Your task to perform on an android device: Add "logitech g pro" to the cart on bestbuy.com, then select checkout. Image 0: 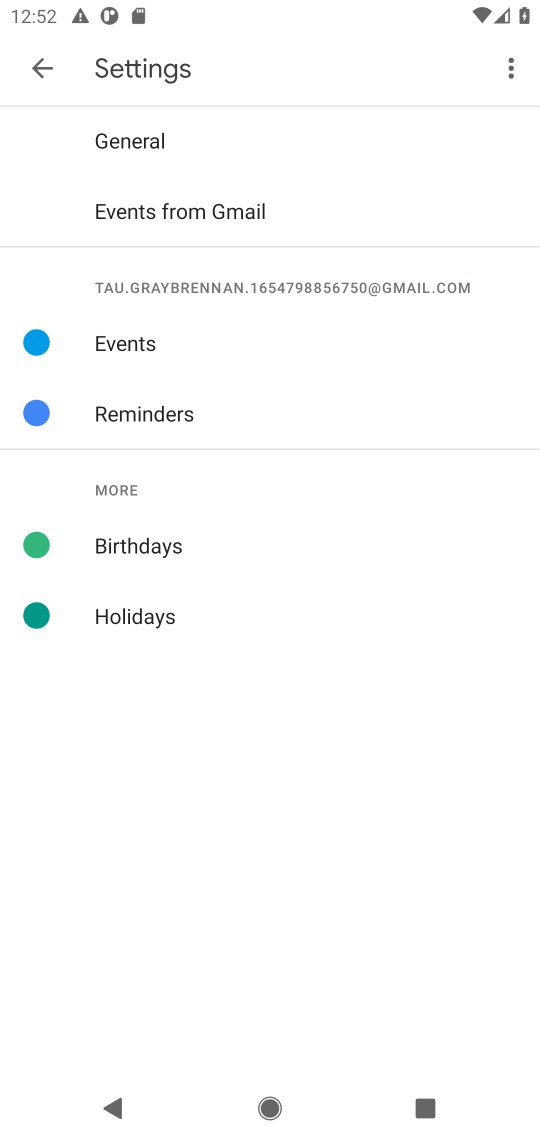
Step 0: press home button
Your task to perform on an android device: Add "logitech g pro" to the cart on bestbuy.com, then select checkout. Image 1: 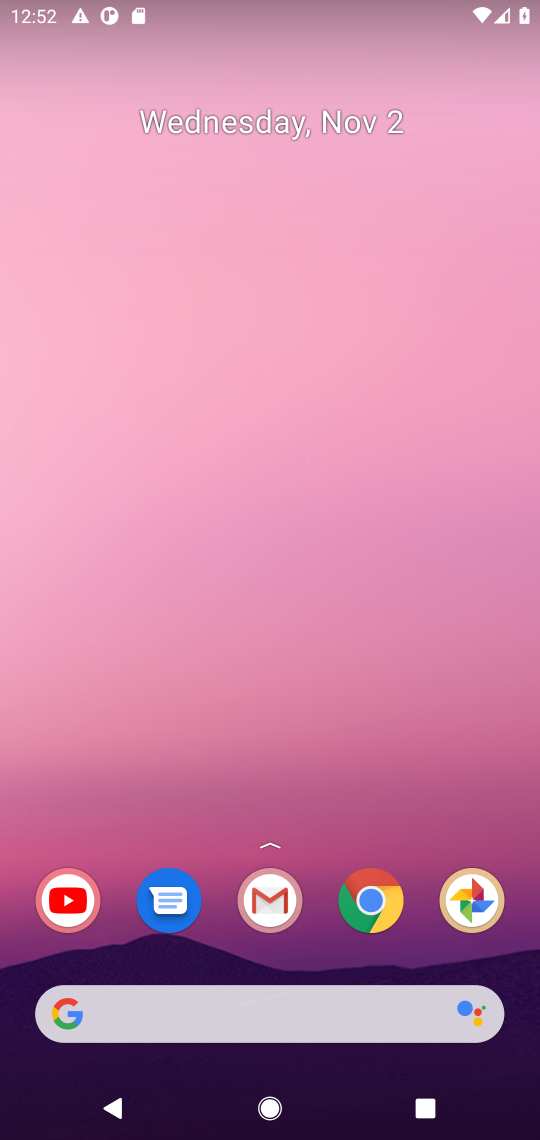
Step 1: click (349, 910)
Your task to perform on an android device: Add "logitech g pro" to the cart on bestbuy.com, then select checkout. Image 2: 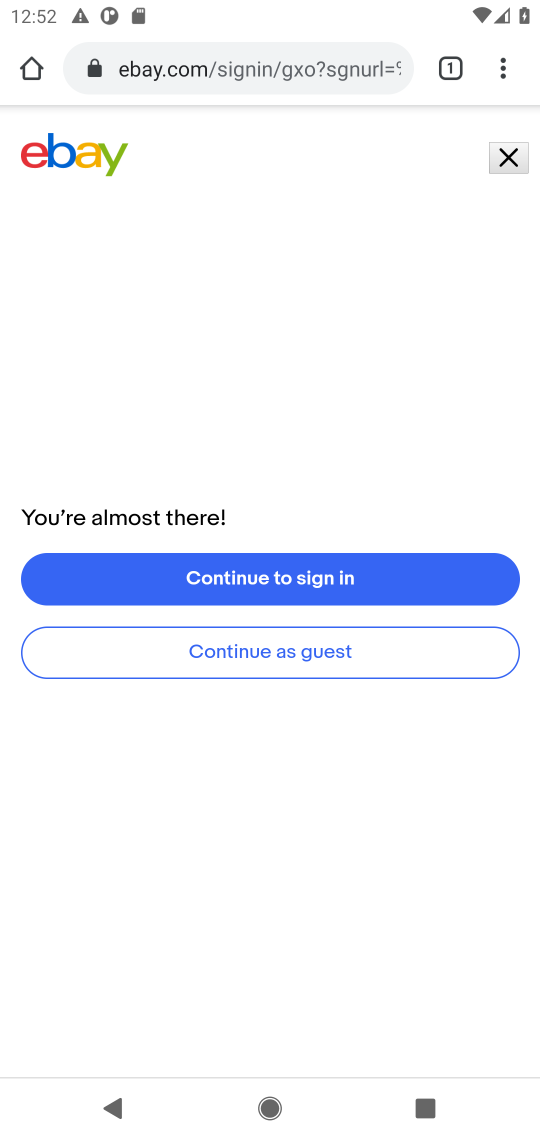
Step 2: click (241, 61)
Your task to perform on an android device: Add "logitech g pro" to the cart on bestbuy.com, then select checkout. Image 3: 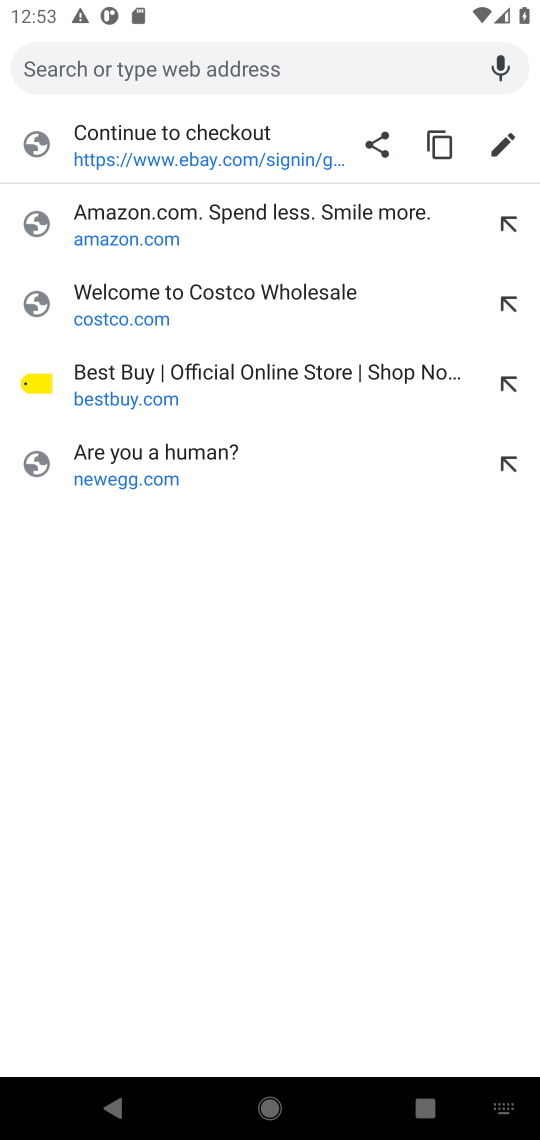
Step 3: click (191, 374)
Your task to perform on an android device: Add "logitech g pro" to the cart on bestbuy.com, then select checkout. Image 4: 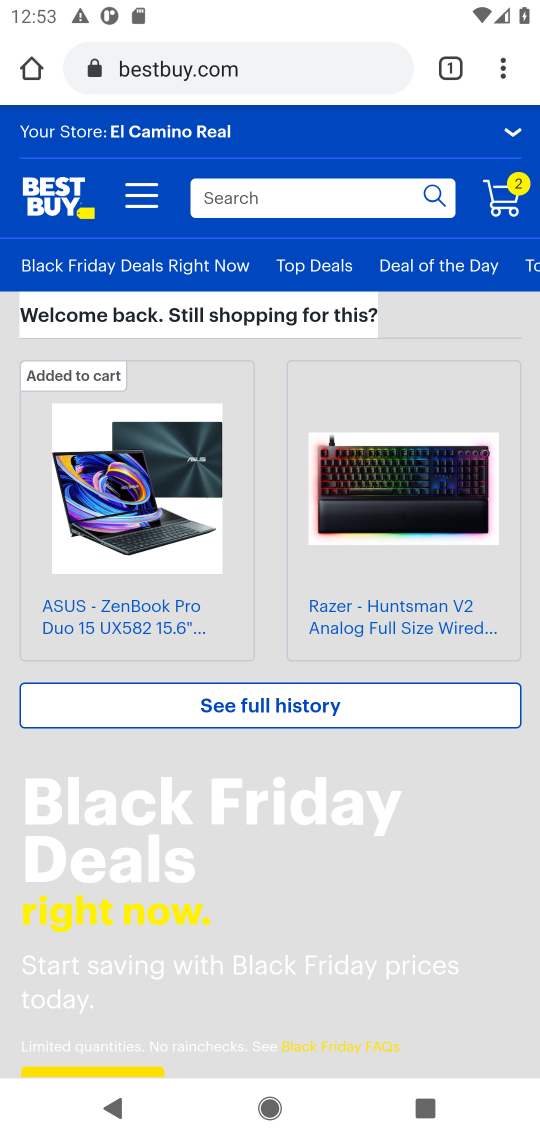
Step 4: click (240, 202)
Your task to perform on an android device: Add "logitech g pro" to the cart on bestbuy.com, then select checkout. Image 5: 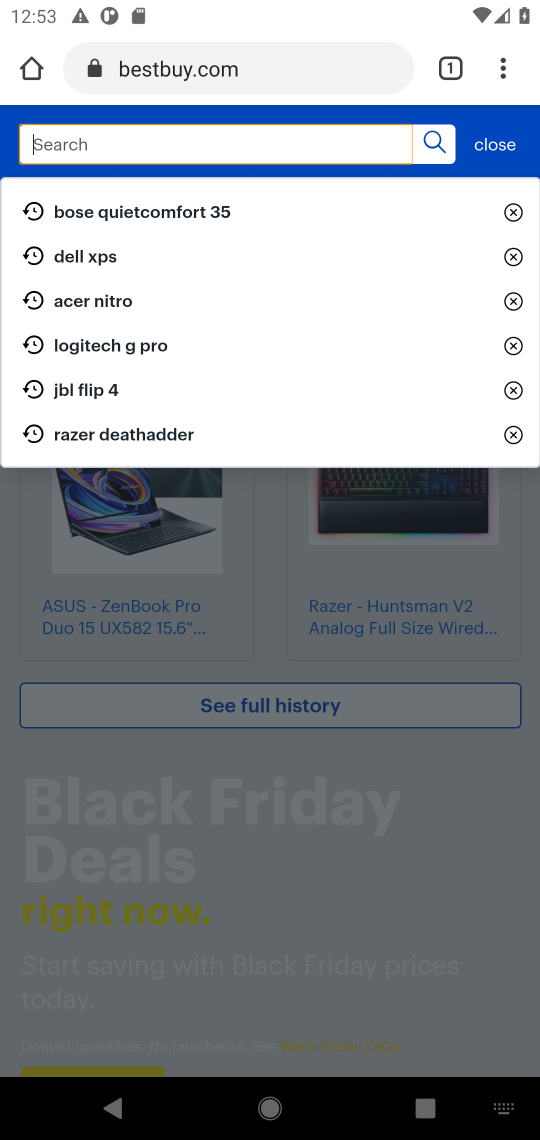
Step 5: type "ogitech g pro"
Your task to perform on an android device: Add "logitech g pro" to the cart on bestbuy.com, then select checkout. Image 6: 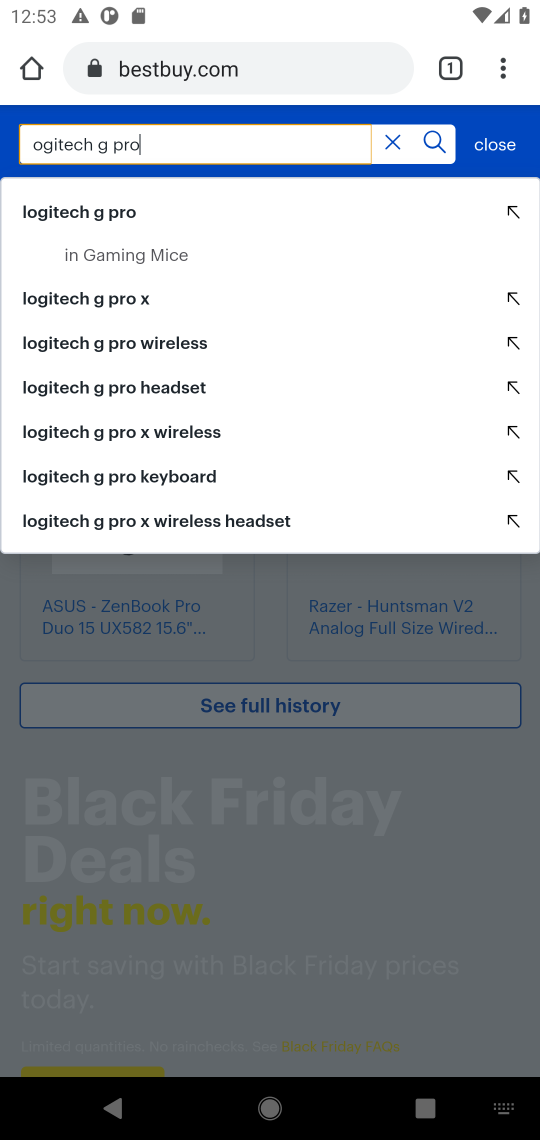
Step 6: click (38, 214)
Your task to perform on an android device: Add "logitech g pro" to the cart on bestbuy.com, then select checkout. Image 7: 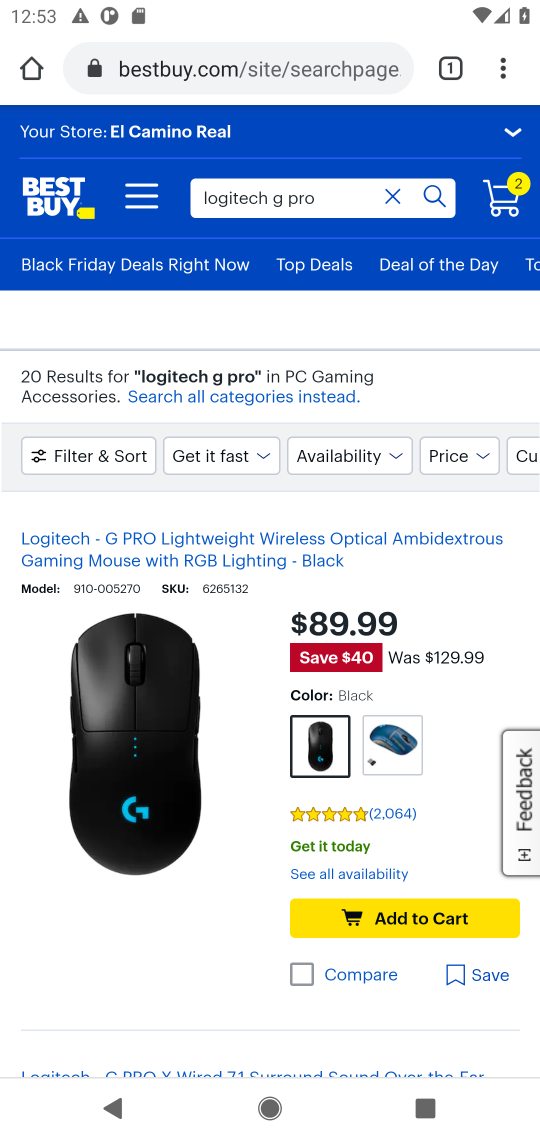
Step 7: click (446, 926)
Your task to perform on an android device: Add "logitech g pro" to the cart on bestbuy.com, then select checkout. Image 8: 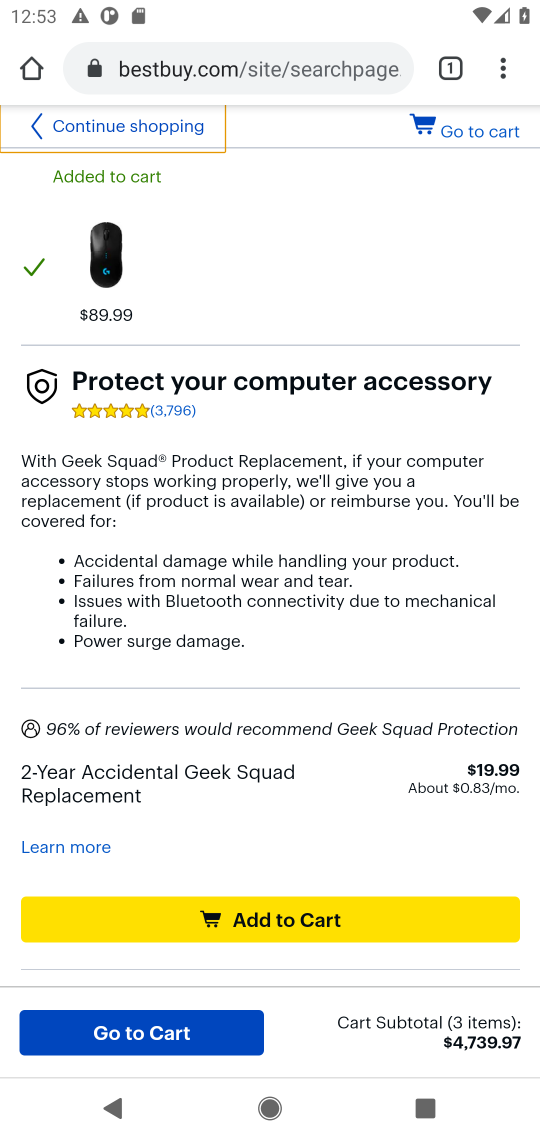
Step 8: click (145, 1019)
Your task to perform on an android device: Add "logitech g pro" to the cart on bestbuy.com, then select checkout. Image 9: 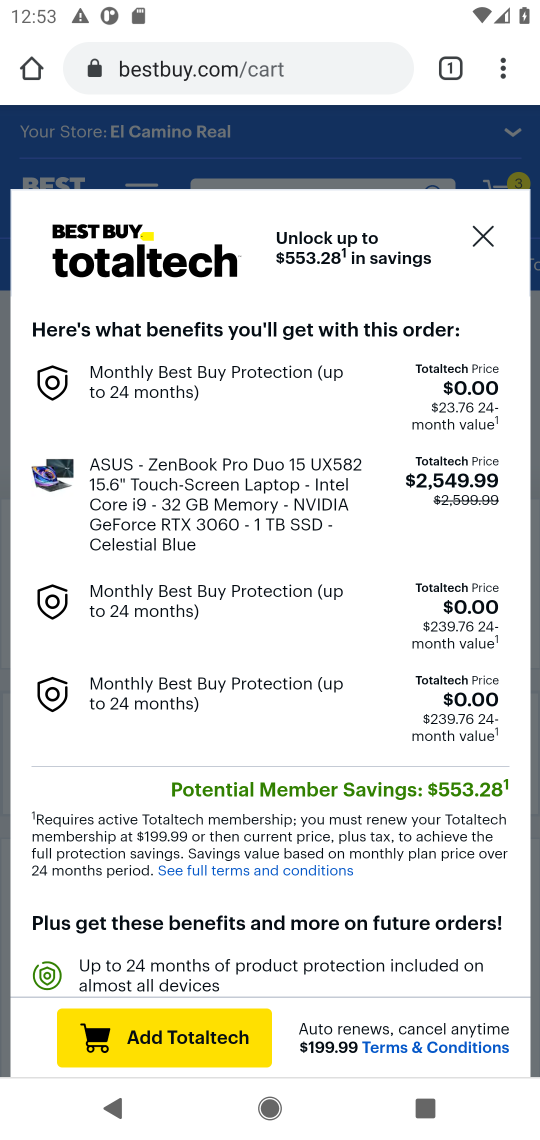
Step 9: click (474, 227)
Your task to perform on an android device: Add "logitech g pro" to the cart on bestbuy.com, then select checkout. Image 10: 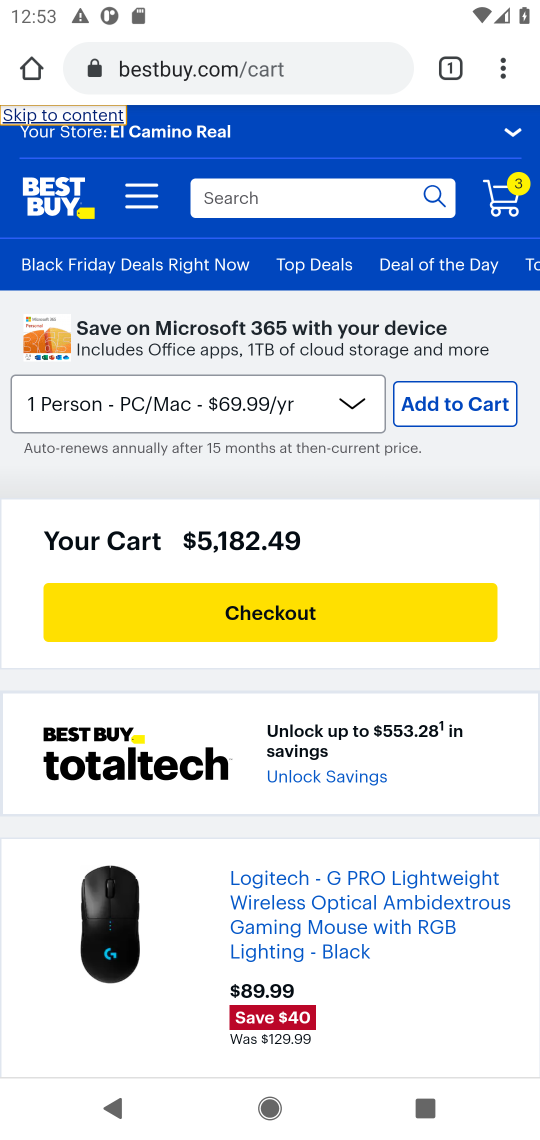
Step 10: click (366, 601)
Your task to perform on an android device: Add "logitech g pro" to the cart on bestbuy.com, then select checkout. Image 11: 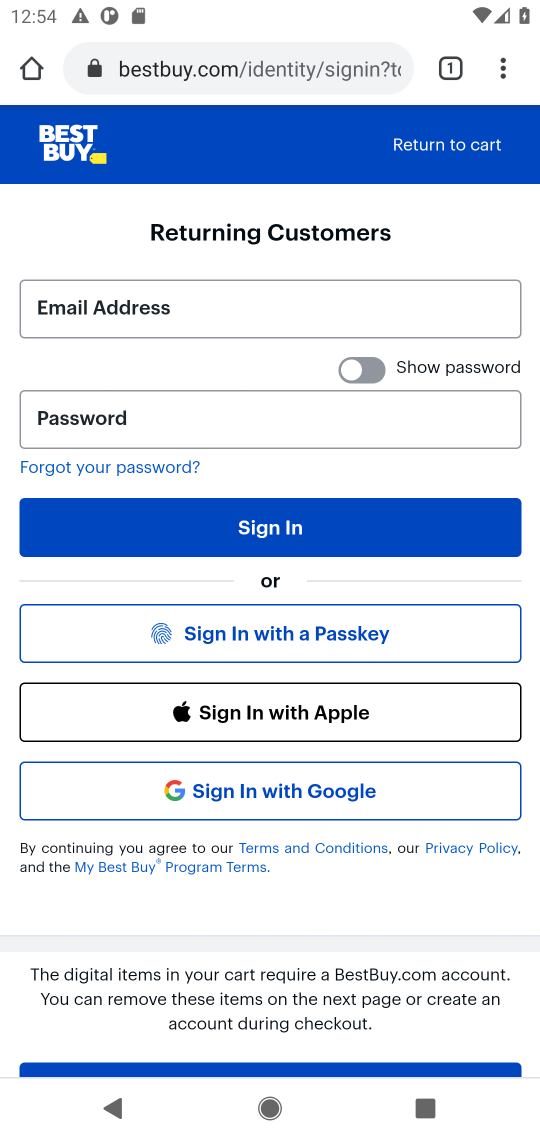
Step 11: task complete